Your task to perform on an android device: turn on bluetooth scan Image 0: 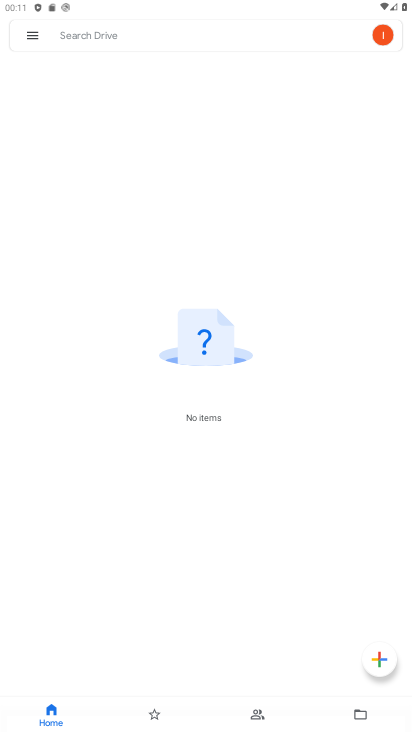
Step 0: press home button
Your task to perform on an android device: turn on bluetooth scan Image 1: 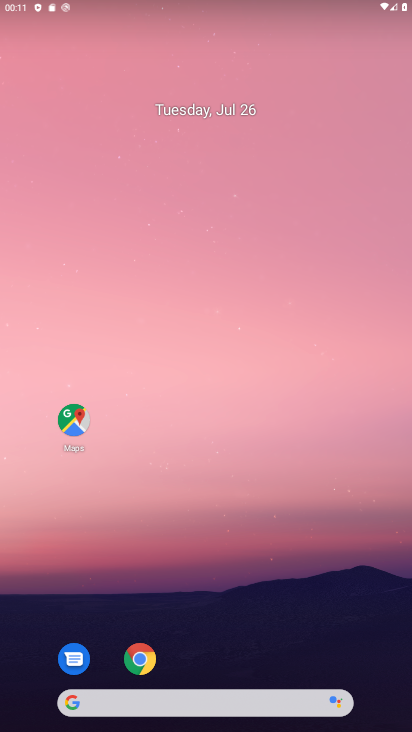
Step 1: drag from (269, 331) to (220, 0)
Your task to perform on an android device: turn on bluetooth scan Image 2: 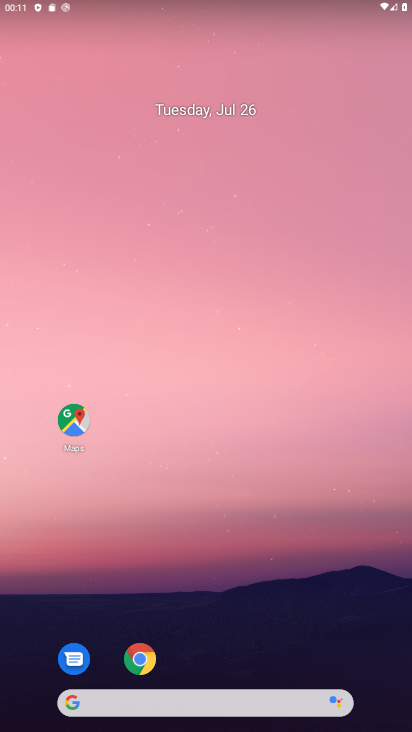
Step 2: drag from (243, 576) to (190, 49)
Your task to perform on an android device: turn on bluetooth scan Image 3: 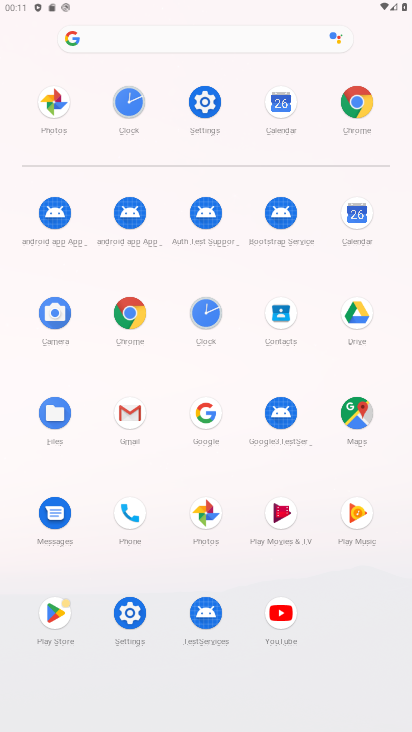
Step 3: click (208, 115)
Your task to perform on an android device: turn on bluetooth scan Image 4: 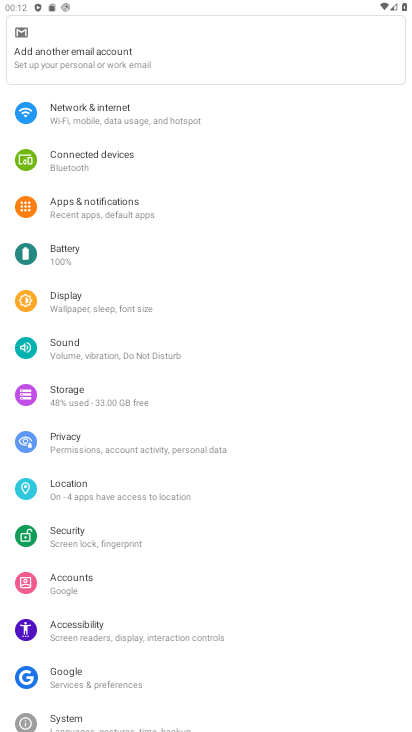
Step 4: click (79, 497)
Your task to perform on an android device: turn on bluetooth scan Image 5: 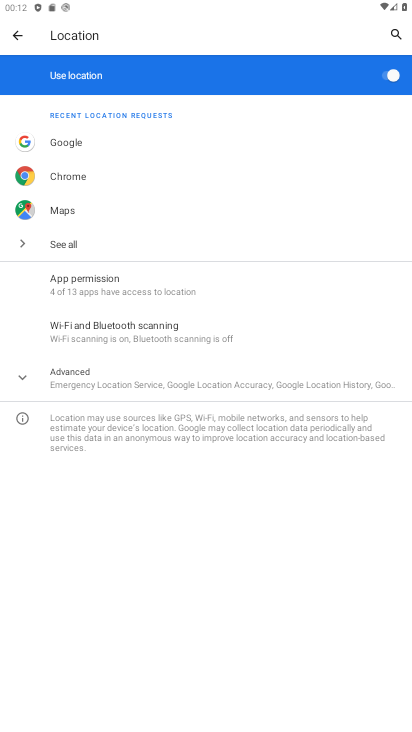
Step 5: click (88, 345)
Your task to perform on an android device: turn on bluetooth scan Image 6: 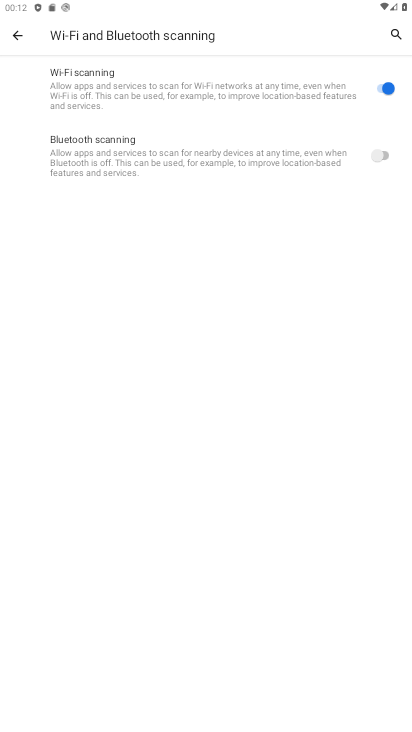
Step 6: click (164, 160)
Your task to perform on an android device: turn on bluetooth scan Image 7: 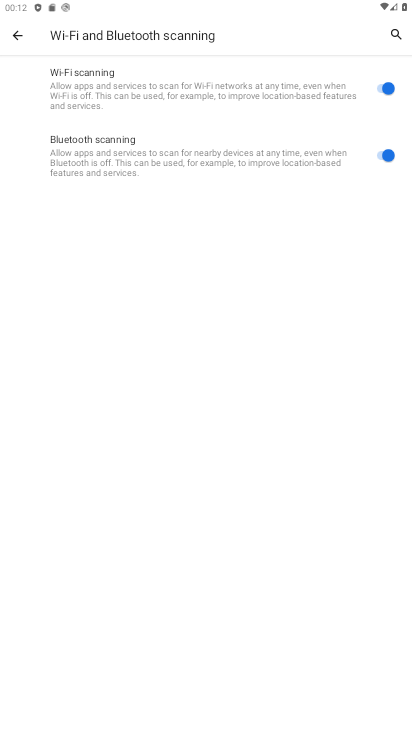
Step 7: task complete